Your task to perform on an android device: turn on the 12-hour format for clock Image 0: 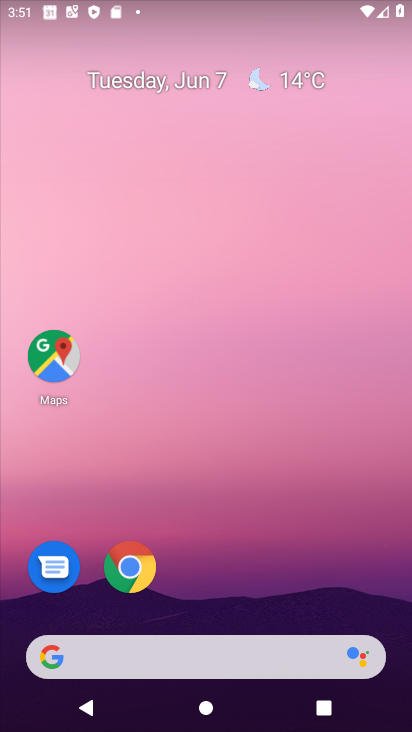
Step 0: drag from (199, 563) to (199, 201)
Your task to perform on an android device: turn on the 12-hour format for clock Image 1: 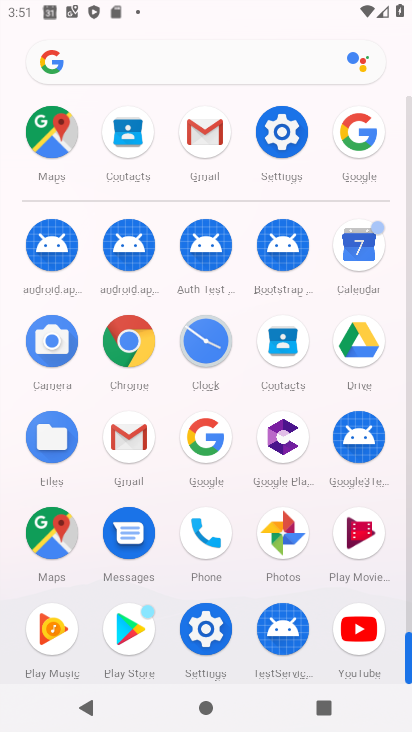
Step 1: click (202, 340)
Your task to perform on an android device: turn on the 12-hour format for clock Image 2: 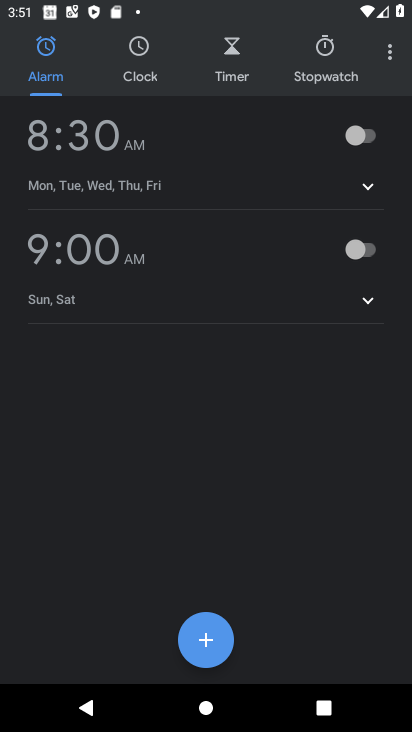
Step 2: click (389, 61)
Your task to perform on an android device: turn on the 12-hour format for clock Image 3: 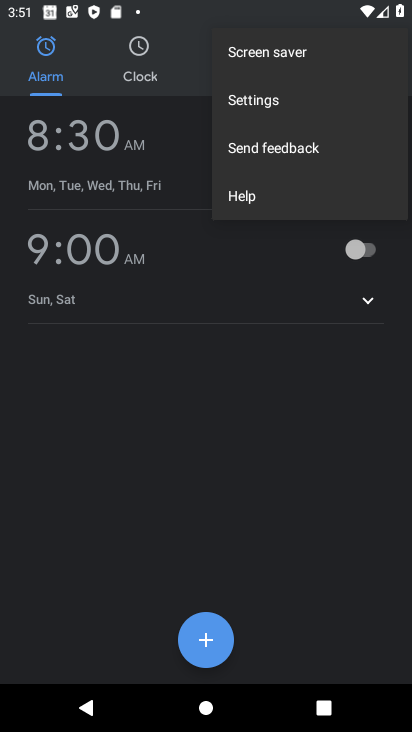
Step 3: click (271, 99)
Your task to perform on an android device: turn on the 12-hour format for clock Image 4: 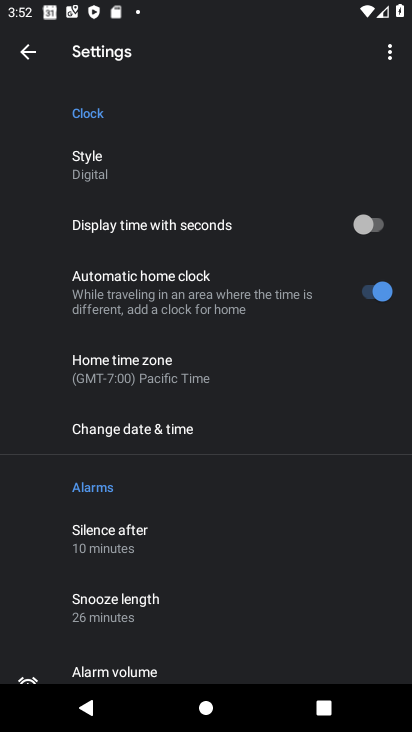
Step 4: click (174, 436)
Your task to perform on an android device: turn on the 12-hour format for clock Image 5: 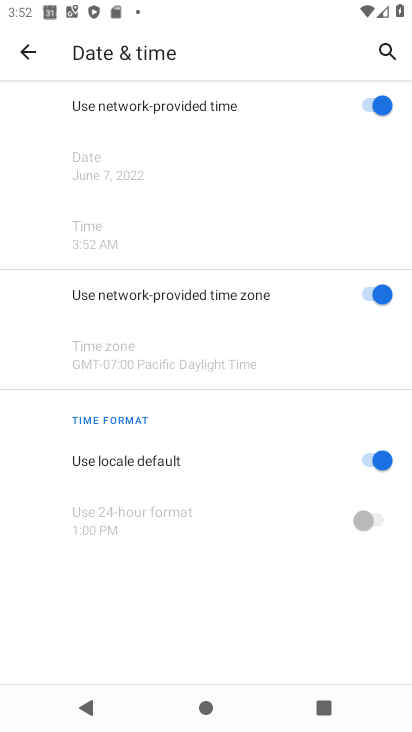
Step 5: task complete